Your task to perform on an android device: find which apps use the phone's location Image 0: 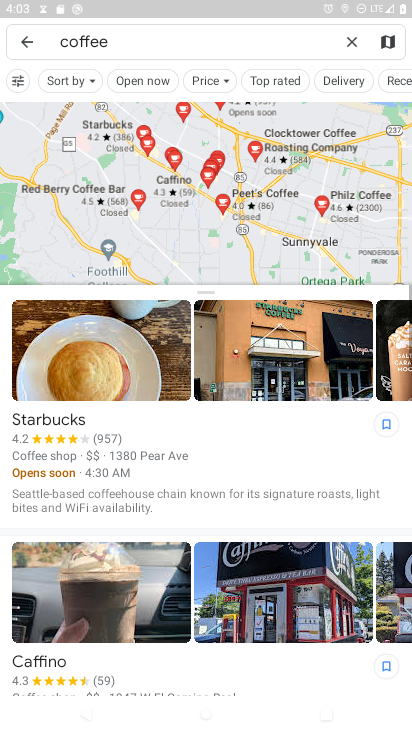
Step 0: press home button
Your task to perform on an android device: find which apps use the phone's location Image 1: 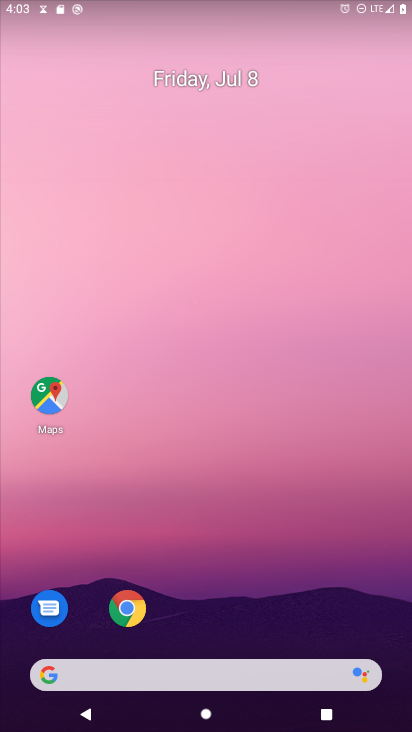
Step 1: drag from (350, 638) to (368, 151)
Your task to perform on an android device: find which apps use the phone's location Image 2: 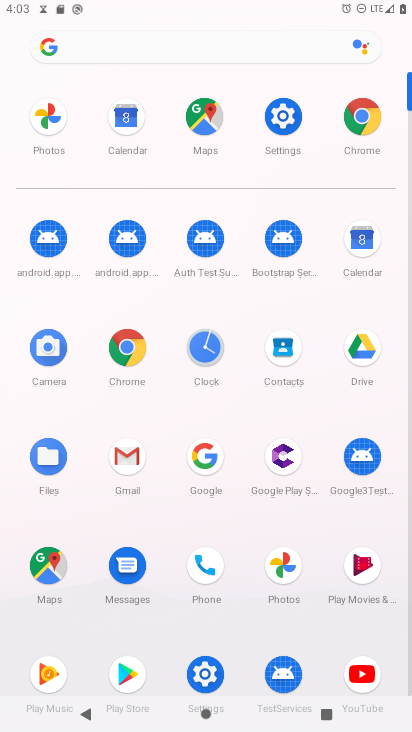
Step 2: click (212, 562)
Your task to perform on an android device: find which apps use the phone's location Image 3: 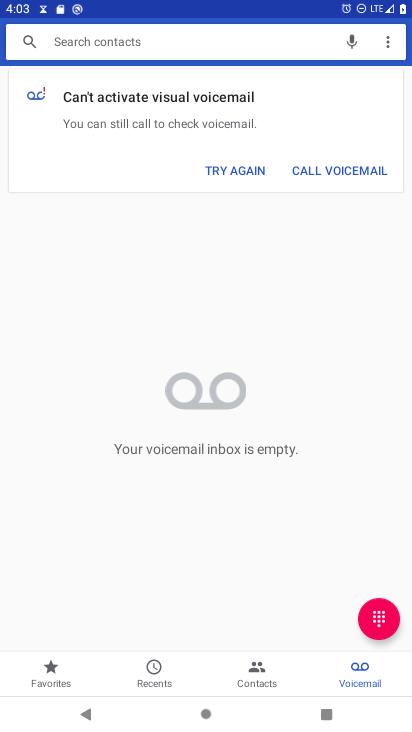
Step 3: press home button
Your task to perform on an android device: find which apps use the phone's location Image 4: 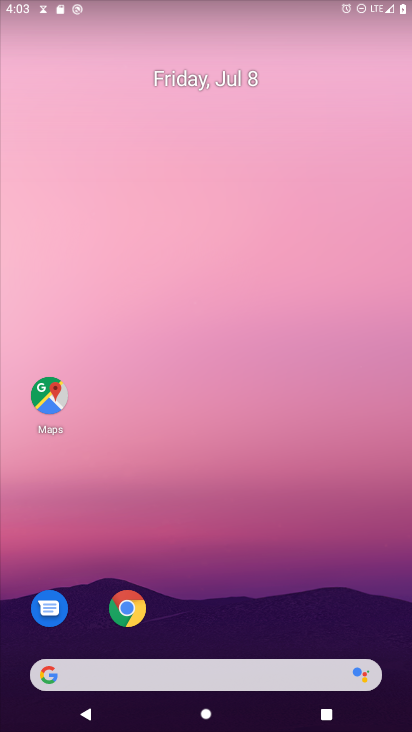
Step 4: drag from (335, 627) to (309, 16)
Your task to perform on an android device: find which apps use the phone's location Image 5: 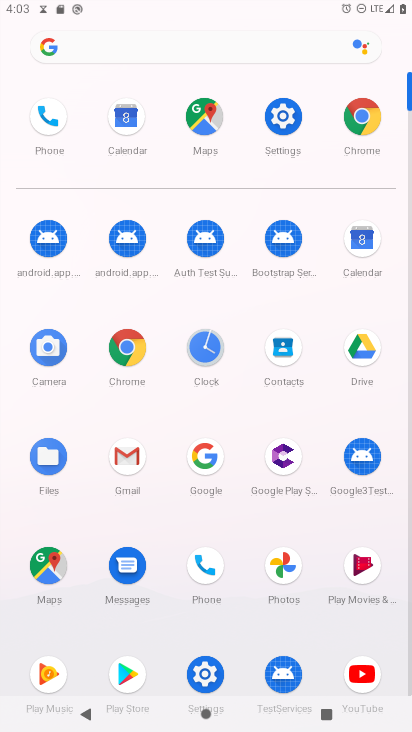
Step 5: click (301, 123)
Your task to perform on an android device: find which apps use the phone's location Image 6: 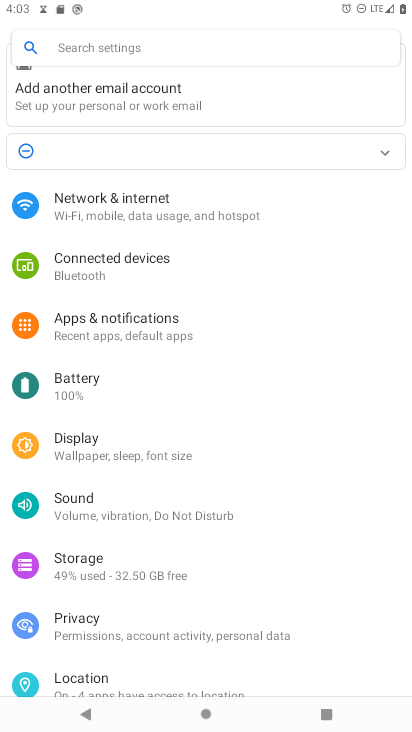
Step 6: click (135, 678)
Your task to perform on an android device: find which apps use the phone's location Image 7: 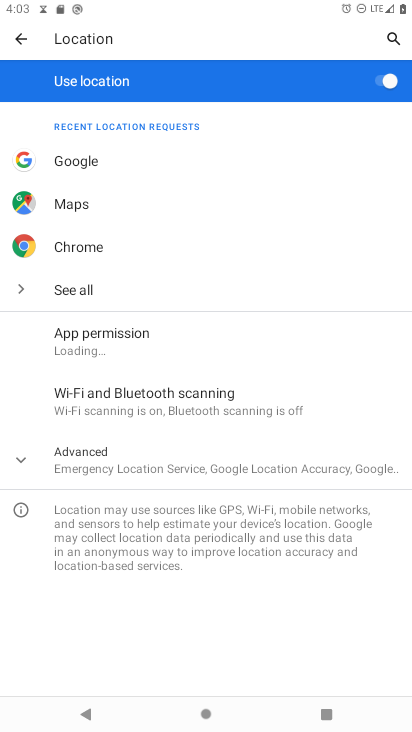
Step 7: click (136, 448)
Your task to perform on an android device: find which apps use the phone's location Image 8: 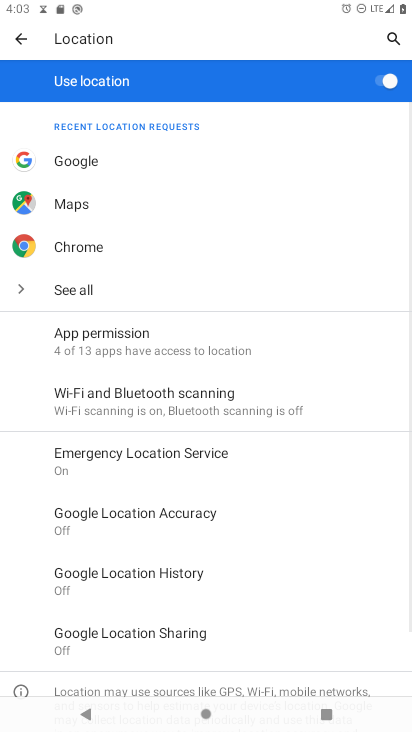
Step 8: click (145, 352)
Your task to perform on an android device: find which apps use the phone's location Image 9: 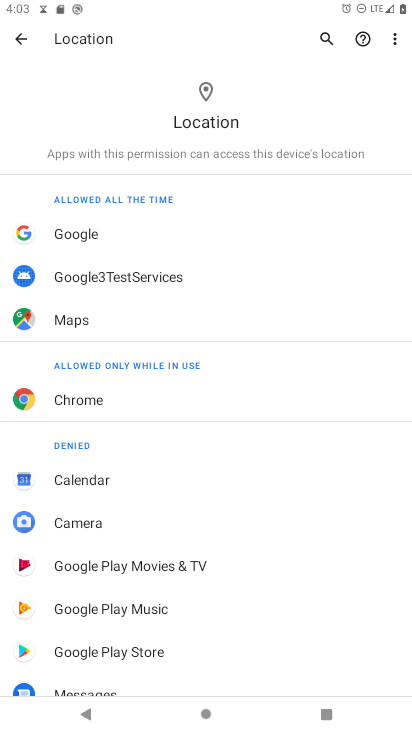
Step 9: task complete